Your task to perform on an android device: Open ESPN.com Image 0: 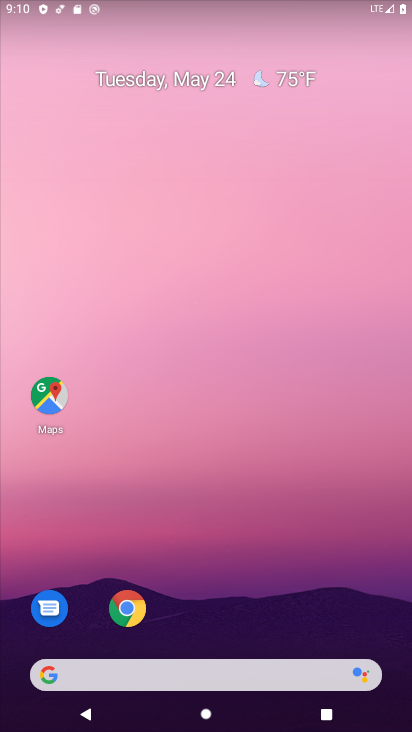
Step 0: click (140, 607)
Your task to perform on an android device: Open ESPN.com Image 1: 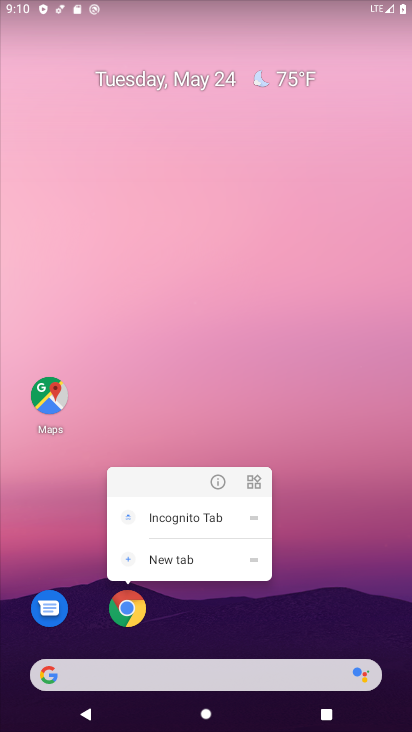
Step 1: click (129, 614)
Your task to perform on an android device: Open ESPN.com Image 2: 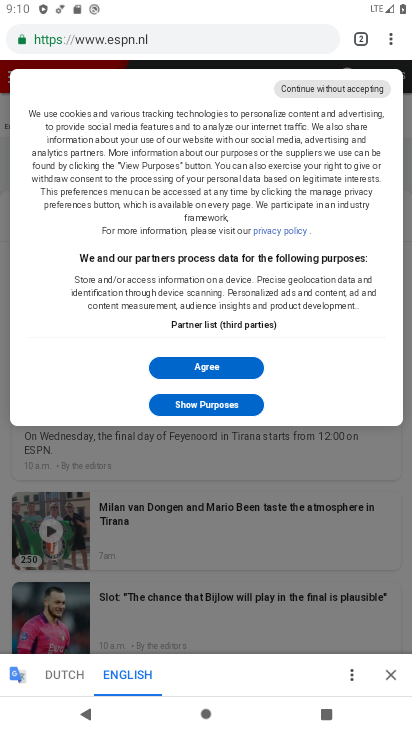
Step 2: click (263, 472)
Your task to perform on an android device: Open ESPN.com Image 3: 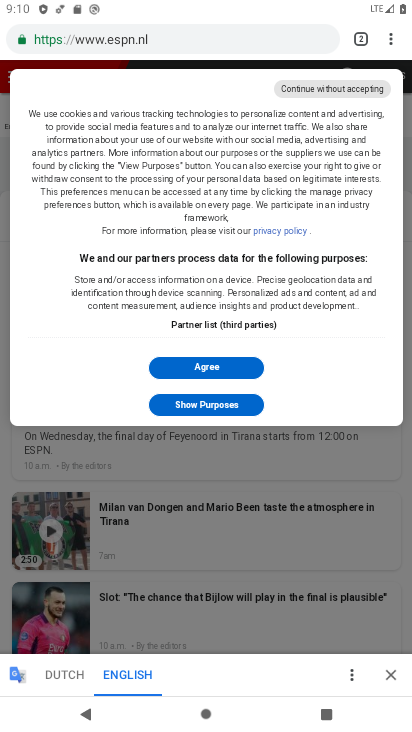
Step 3: task complete